Your task to perform on an android device: set an alarm Image 0: 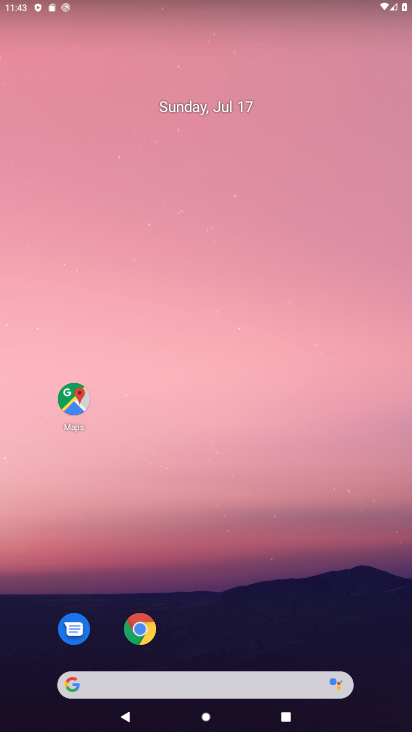
Step 0: press home button
Your task to perform on an android device: set an alarm Image 1: 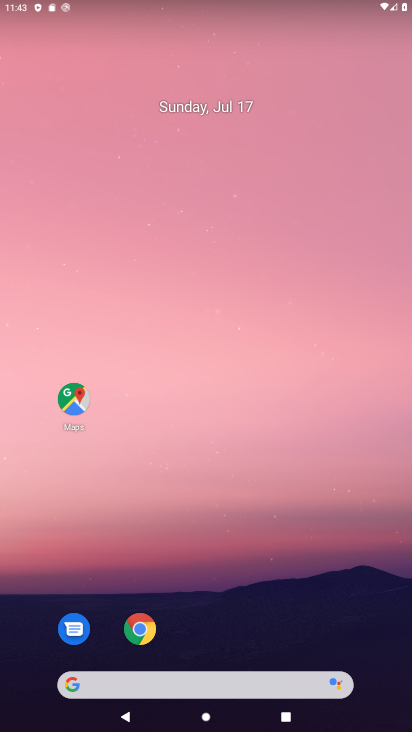
Step 1: drag from (179, 479) to (180, 30)
Your task to perform on an android device: set an alarm Image 2: 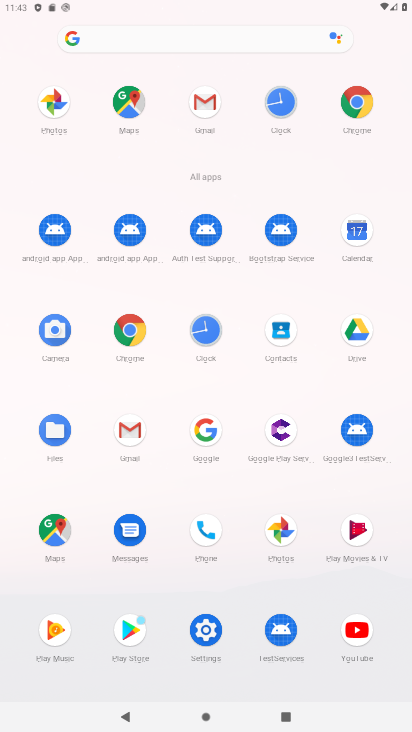
Step 2: click (197, 319)
Your task to perform on an android device: set an alarm Image 3: 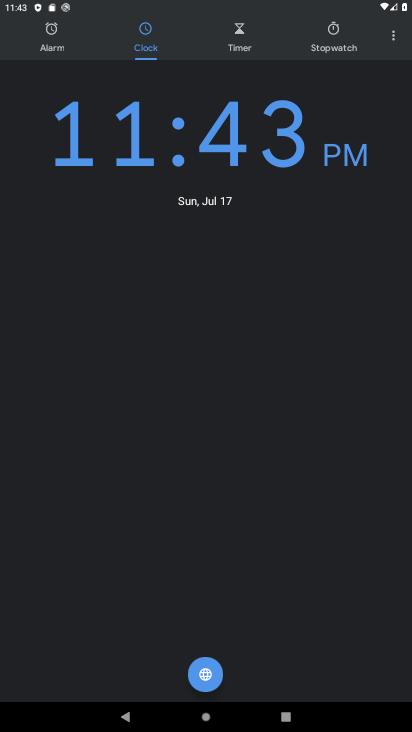
Step 3: click (38, 25)
Your task to perform on an android device: set an alarm Image 4: 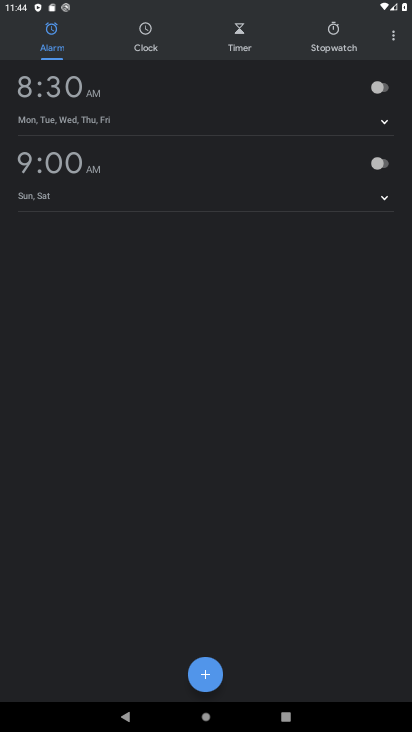
Step 4: click (206, 673)
Your task to perform on an android device: set an alarm Image 5: 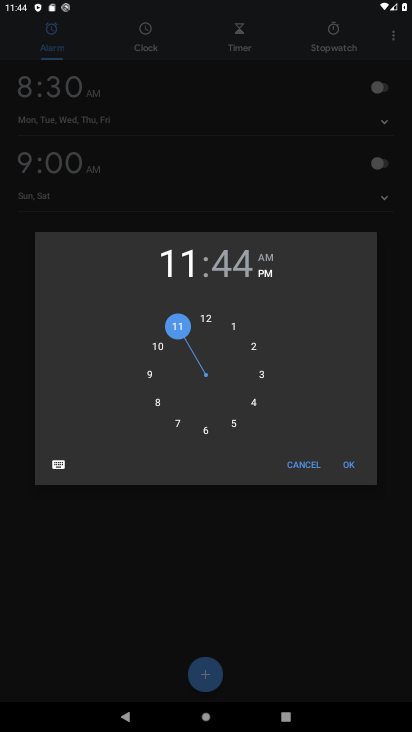
Step 5: click (224, 441)
Your task to perform on an android device: set an alarm Image 6: 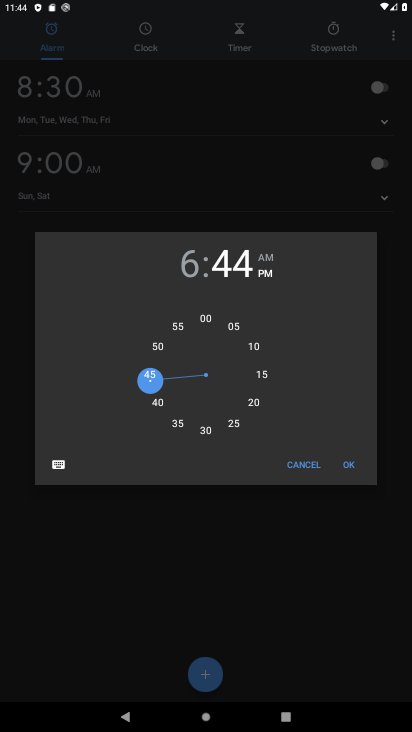
Step 6: drag from (337, 460) to (233, 418)
Your task to perform on an android device: set an alarm Image 7: 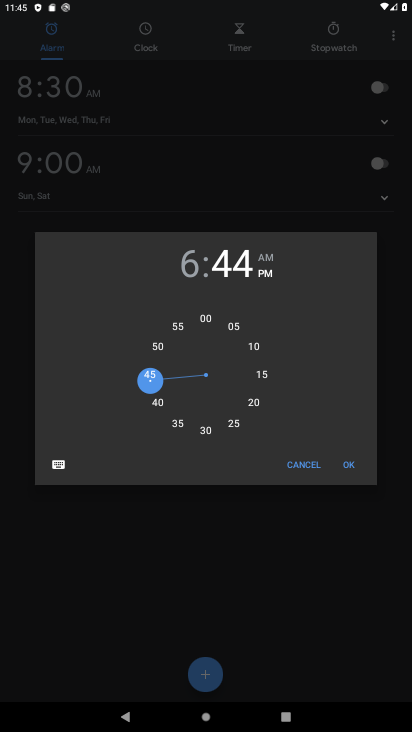
Step 7: click (367, 468)
Your task to perform on an android device: set an alarm Image 8: 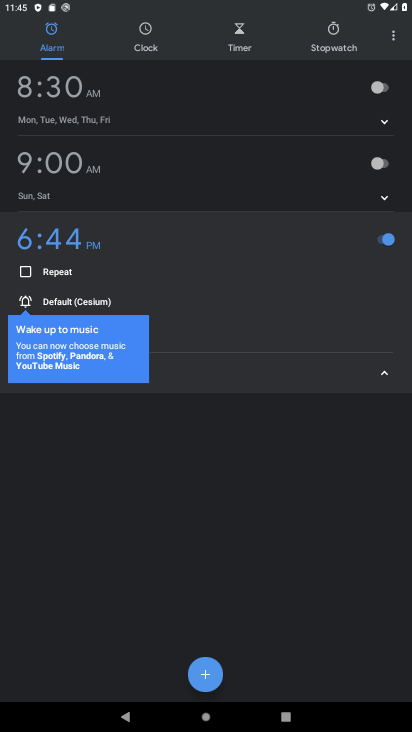
Step 8: task complete